Your task to perform on an android device: open a bookmark in the chrome app Image 0: 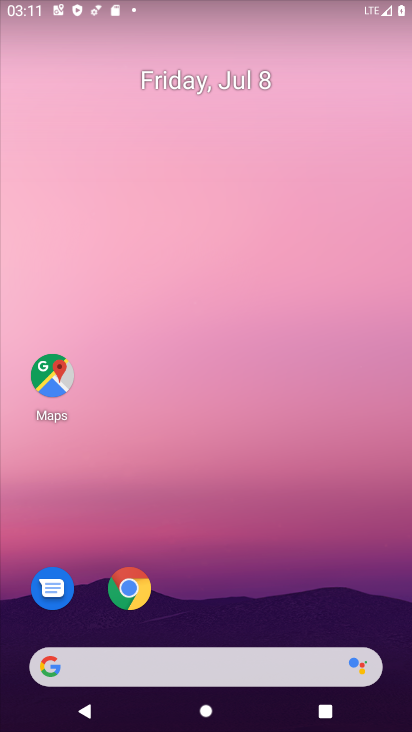
Step 0: click (133, 594)
Your task to perform on an android device: open a bookmark in the chrome app Image 1: 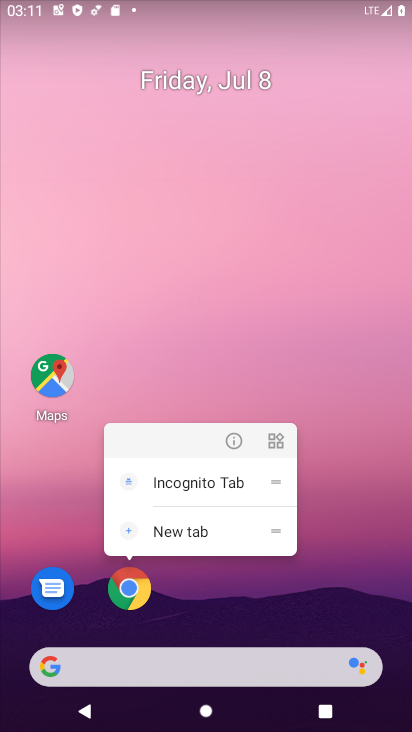
Step 1: click (127, 595)
Your task to perform on an android device: open a bookmark in the chrome app Image 2: 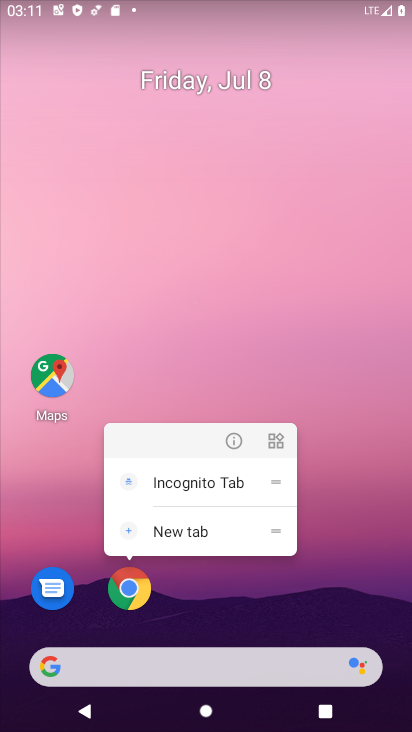
Step 2: click (131, 588)
Your task to perform on an android device: open a bookmark in the chrome app Image 3: 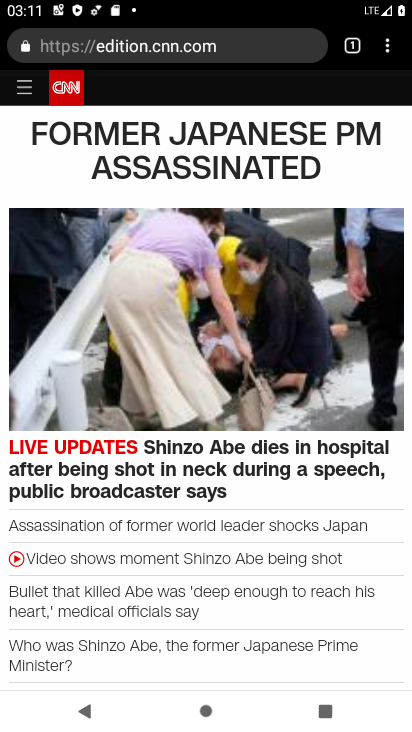
Step 3: task complete